Your task to perform on an android device: change text size in settings app Image 0: 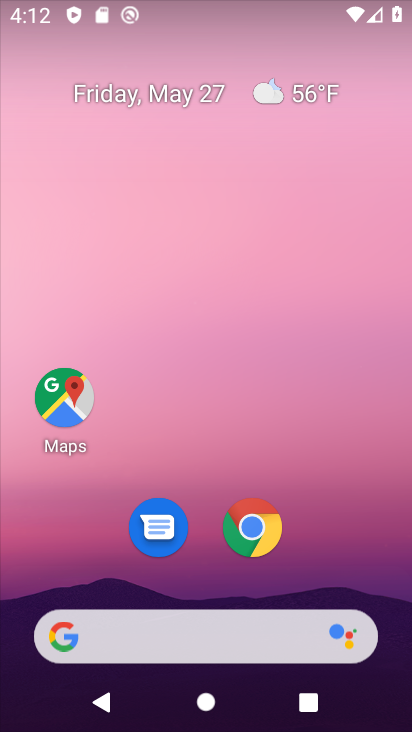
Step 0: drag from (70, 579) to (187, 132)
Your task to perform on an android device: change text size in settings app Image 1: 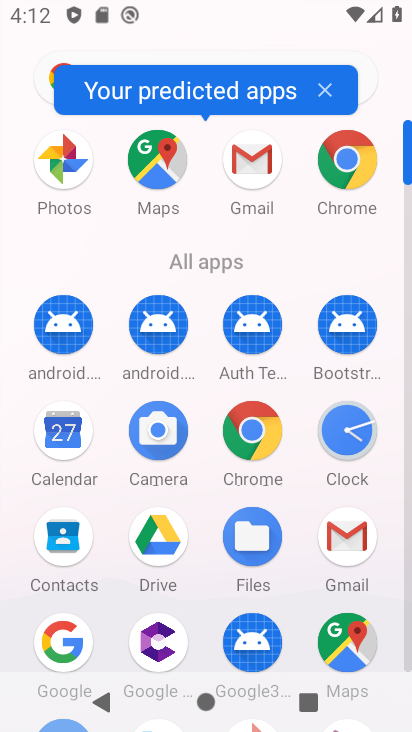
Step 1: drag from (162, 605) to (219, 369)
Your task to perform on an android device: change text size in settings app Image 2: 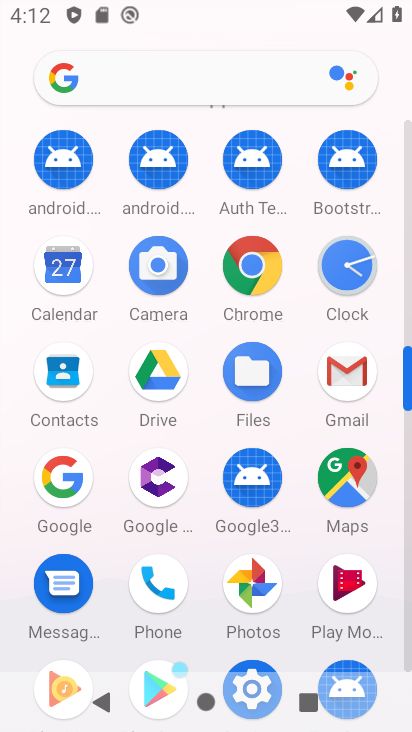
Step 2: click (260, 676)
Your task to perform on an android device: change text size in settings app Image 3: 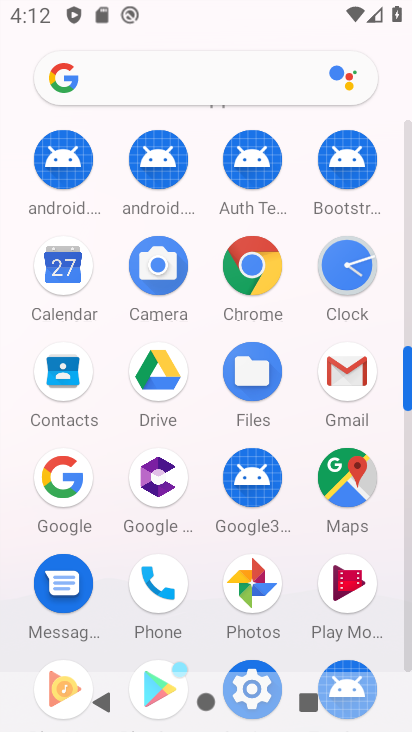
Step 3: click (260, 674)
Your task to perform on an android device: change text size in settings app Image 4: 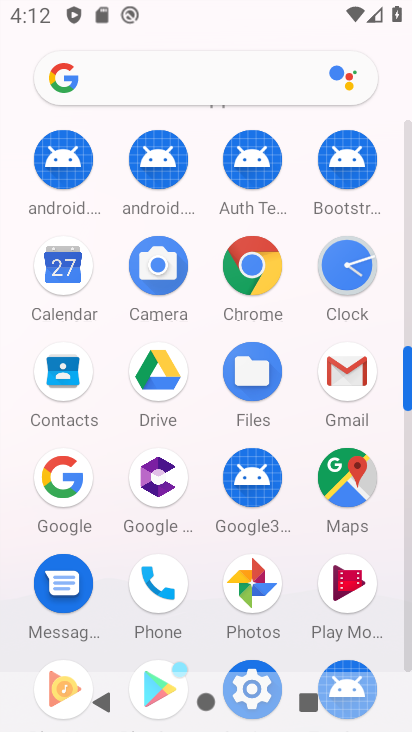
Step 4: click (260, 673)
Your task to perform on an android device: change text size in settings app Image 5: 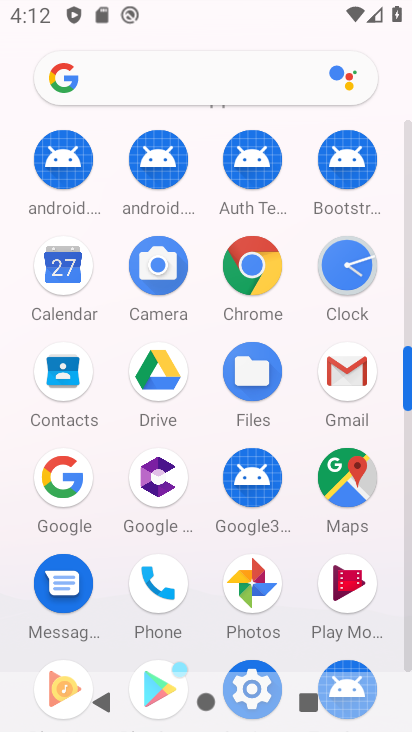
Step 5: drag from (379, 590) to (404, 418)
Your task to perform on an android device: change text size in settings app Image 6: 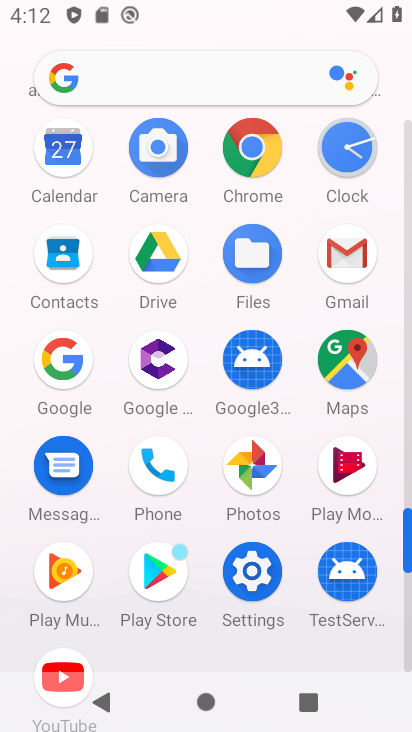
Step 6: click (258, 561)
Your task to perform on an android device: change text size in settings app Image 7: 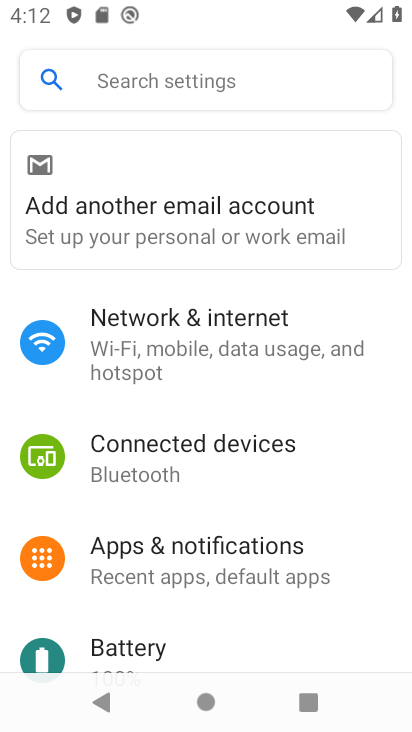
Step 7: drag from (209, 621) to (306, 230)
Your task to perform on an android device: change text size in settings app Image 8: 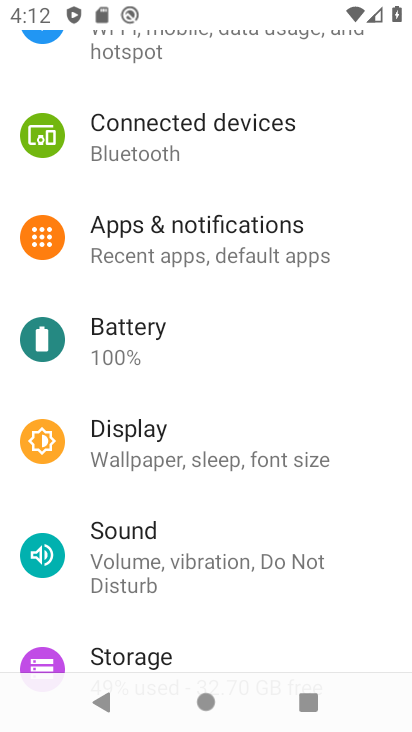
Step 8: click (191, 432)
Your task to perform on an android device: change text size in settings app Image 9: 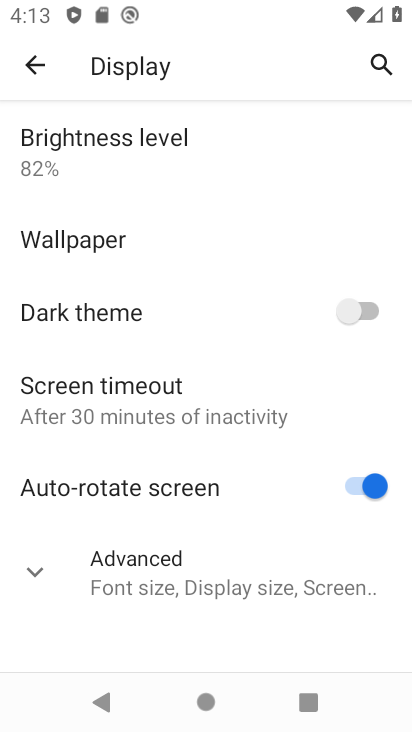
Step 9: drag from (183, 553) to (304, 136)
Your task to perform on an android device: change text size in settings app Image 10: 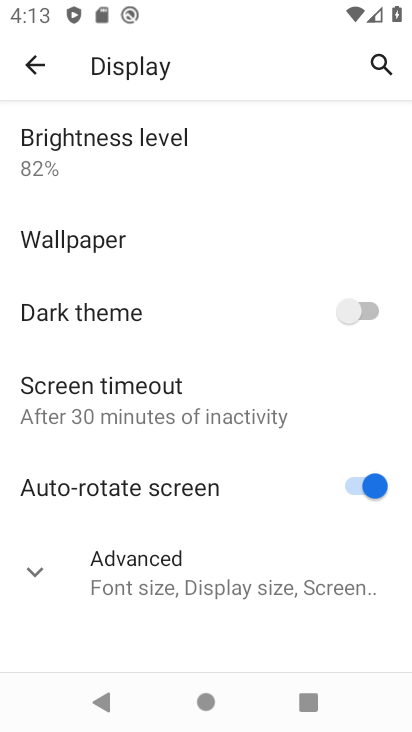
Step 10: click (229, 561)
Your task to perform on an android device: change text size in settings app Image 11: 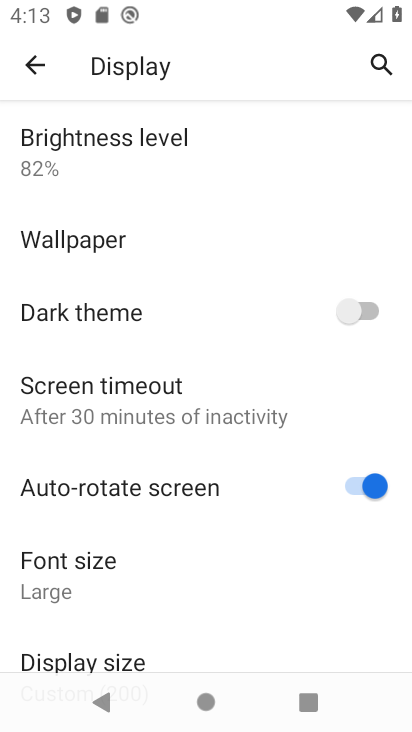
Step 11: drag from (132, 645) to (182, 318)
Your task to perform on an android device: change text size in settings app Image 12: 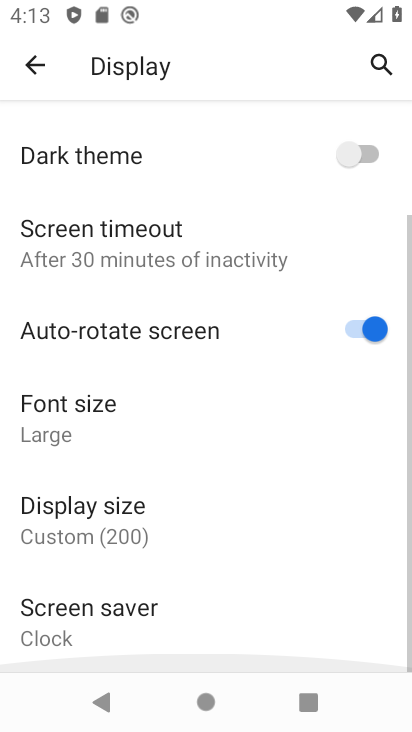
Step 12: click (136, 408)
Your task to perform on an android device: change text size in settings app Image 13: 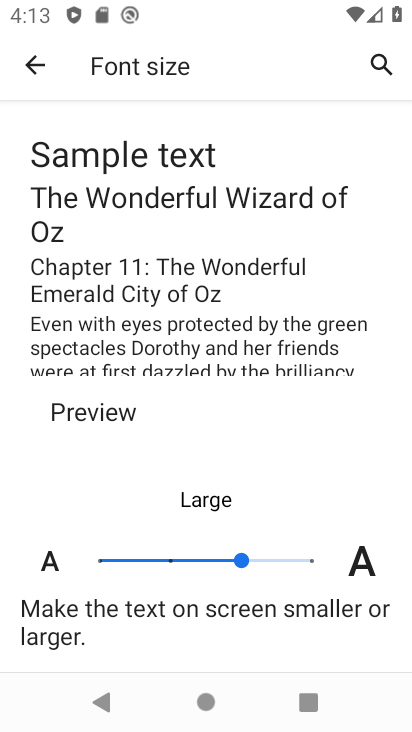
Step 13: task complete